Your task to perform on an android device: Open wifi settings Image 0: 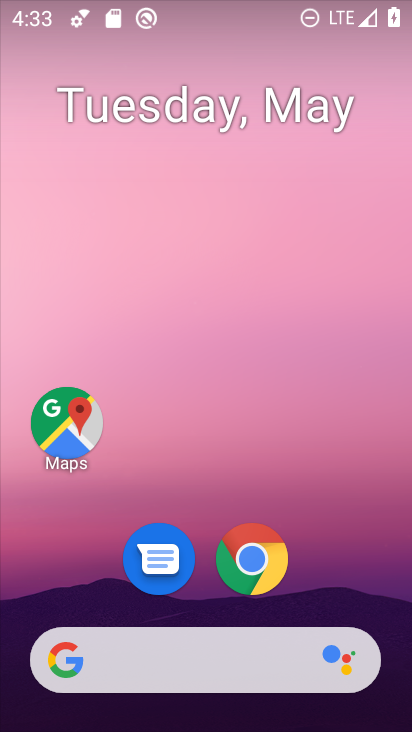
Step 0: drag from (168, 718) to (183, 279)
Your task to perform on an android device: Open wifi settings Image 1: 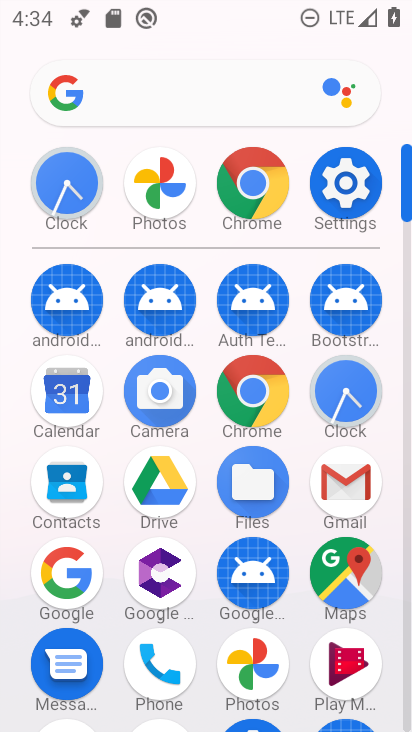
Step 1: click (354, 190)
Your task to perform on an android device: Open wifi settings Image 2: 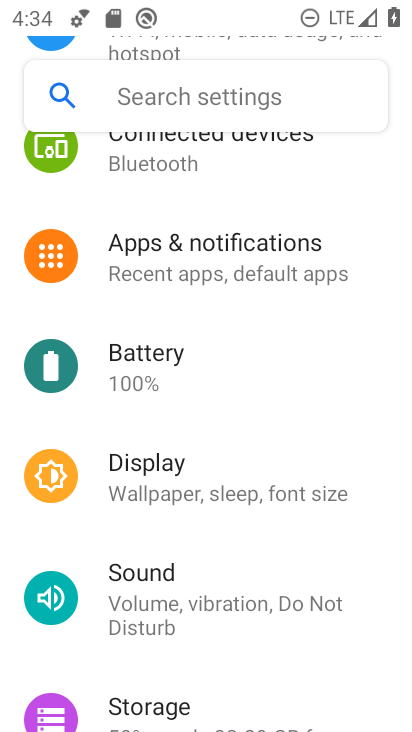
Step 2: drag from (258, 199) to (291, 599)
Your task to perform on an android device: Open wifi settings Image 3: 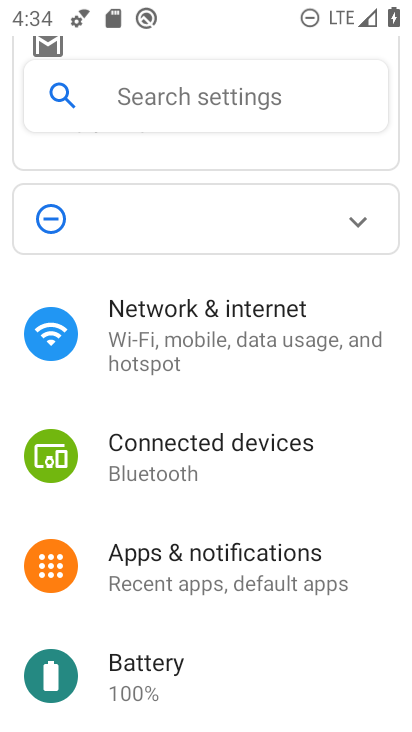
Step 3: click (197, 321)
Your task to perform on an android device: Open wifi settings Image 4: 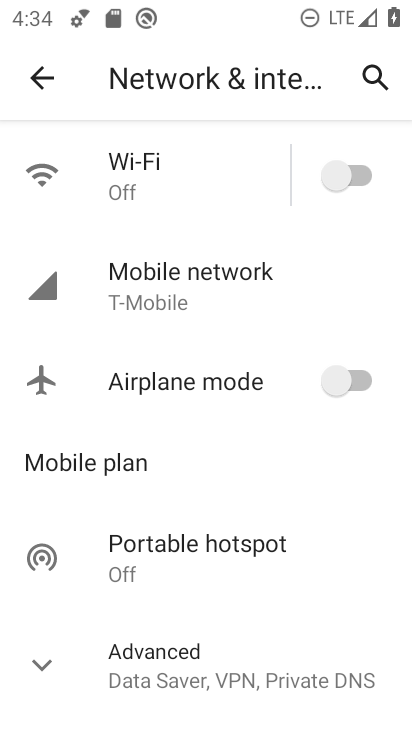
Step 4: click (119, 178)
Your task to perform on an android device: Open wifi settings Image 5: 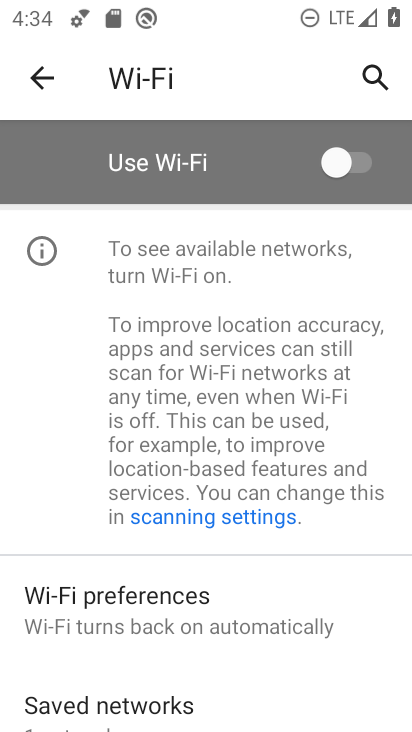
Step 5: task complete